Your task to perform on an android device: turn vacation reply on in the gmail app Image 0: 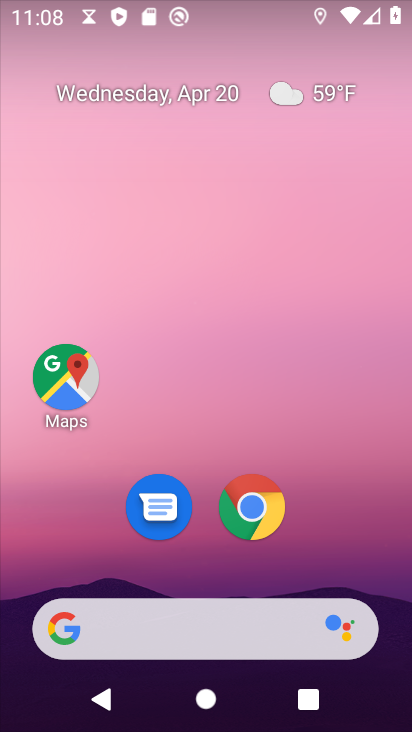
Step 0: drag from (288, 668) to (274, 301)
Your task to perform on an android device: turn vacation reply on in the gmail app Image 1: 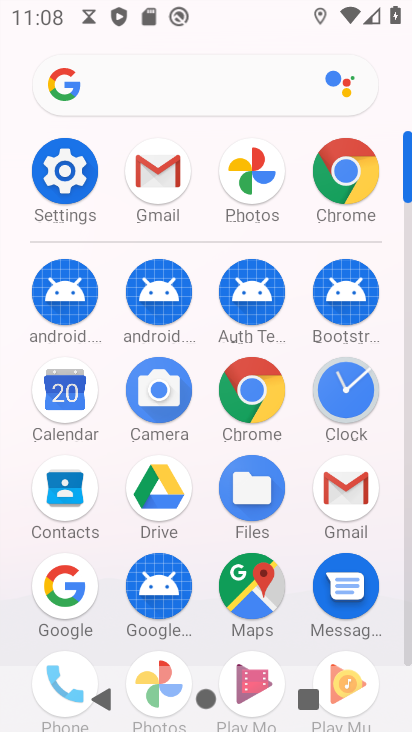
Step 1: drag from (199, 542) to (232, 370)
Your task to perform on an android device: turn vacation reply on in the gmail app Image 2: 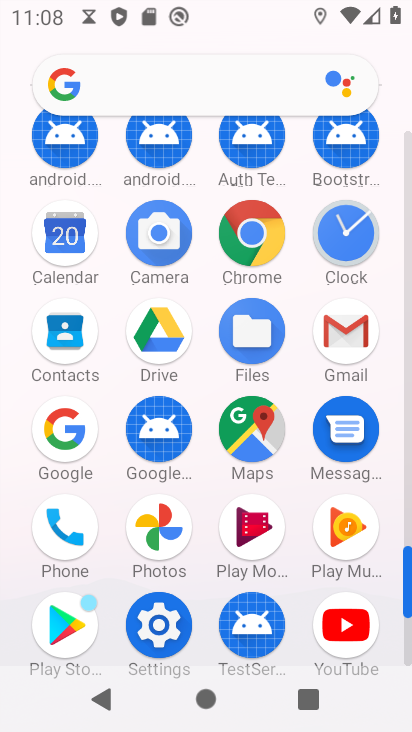
Step 2: click (331, 337)
Your task to perform on an android device: turn vacation reply on in the gmail app Image 3: 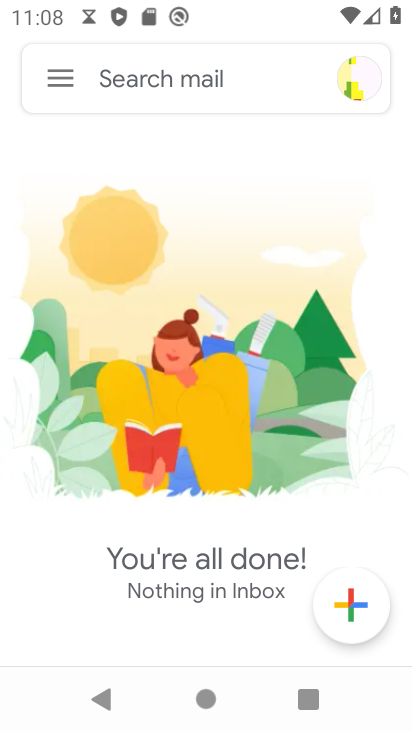
Step 3: click (66, 83)
Your task to perform on an android device: turn vacation reply on in the gmail app Image 4: 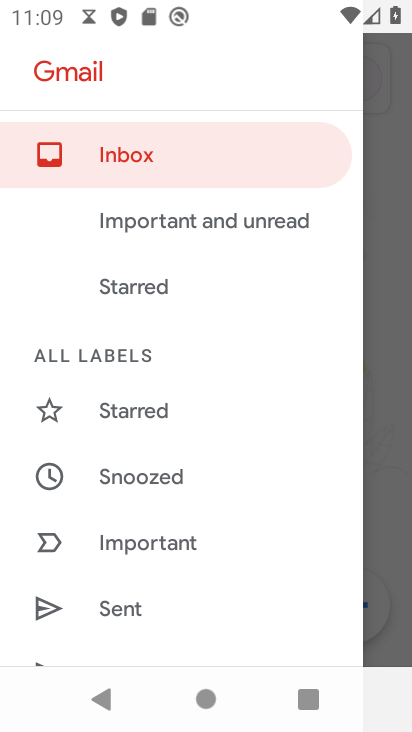
Step 4: drag from (151, 504) to (371, 223)
Your task to perform on an android device: turn vacation reply on in the gmail app Image 5: 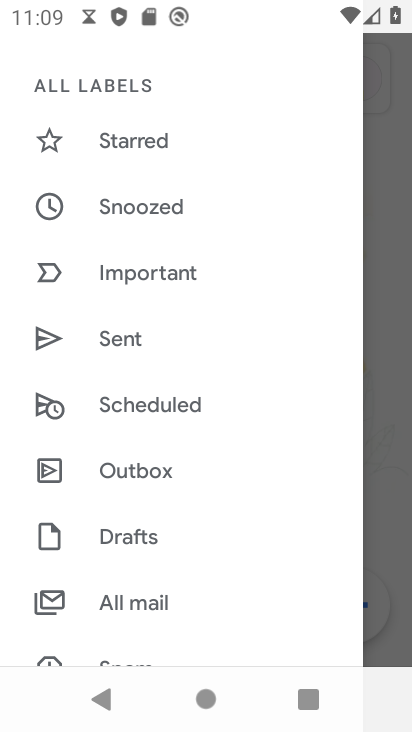
Step 5: drag from (168, 577) to (338, 297)
Your task to perform on an android device: turn vacation reply on in the gmail app Image 6: 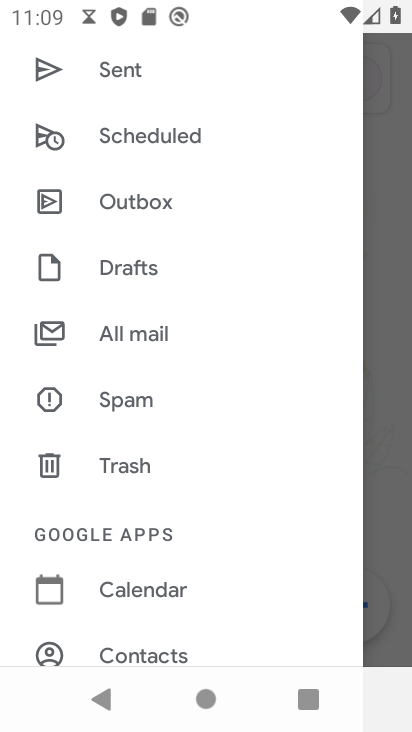
Step 6: drag from (138, 538) to (305, 285)
Your task to perform on an android device: turn vacation reply on in the gmail app Image 7: 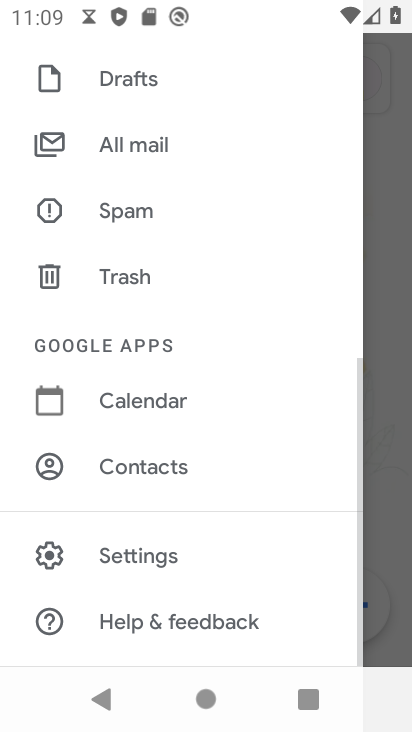
Step 7: click (125, 541)
Your task to perform on an android device: turn vacation reply on in the gmail app Image 8: 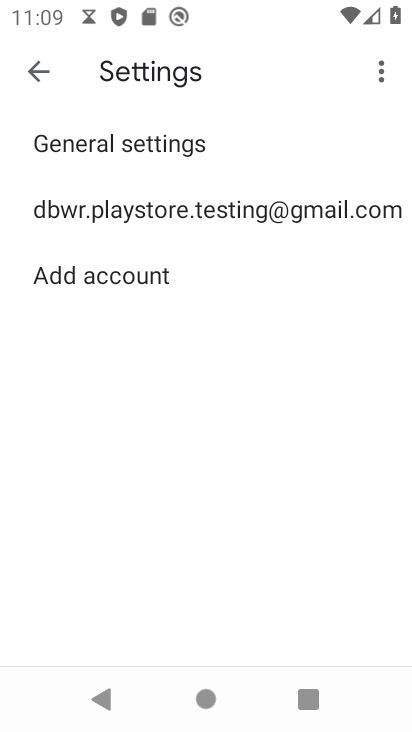
Step 8: click (161, 208)
Your task to perform on an android device: turn vacation reply on in the gmail app Image 9: 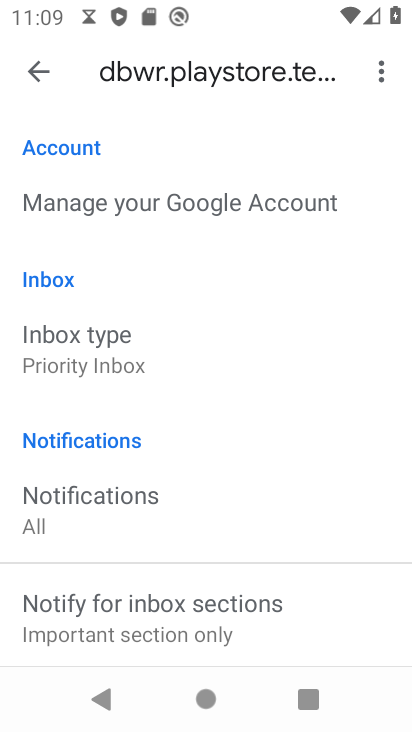
Step 9: drag from (181, 598) to (307, 234)
Your task to perform on an android device: turn vacation reply on in the gmail app Image 10: 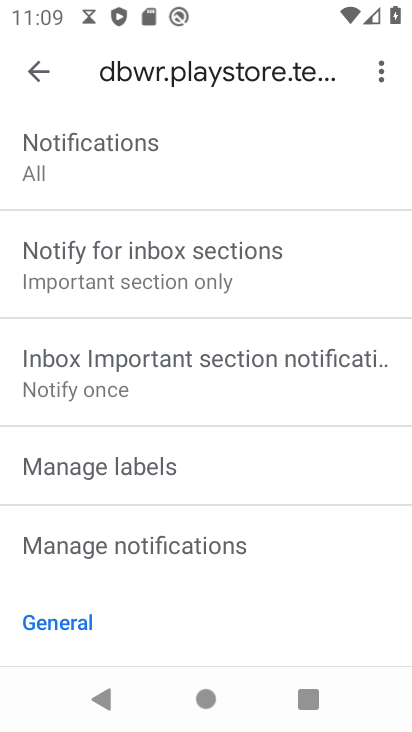
Step 10: drag from (200, 581) to (276, 237)
Your task to perform on an android device: turn vacation reply on in the gmail app Image 11: 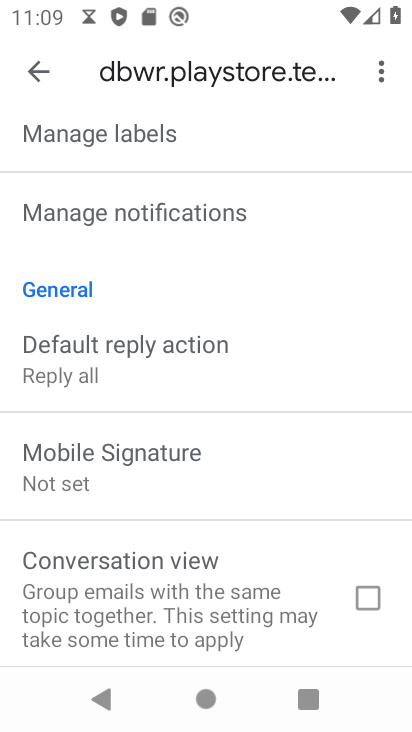
Step 11: drag from (204, 599) to (264, 208)
Your task to perform on an android device: turn vacation reply on in the gmail app Image 12: 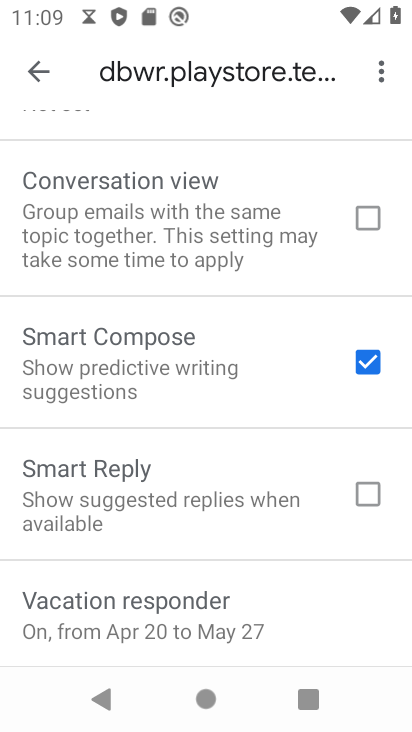
Step 12: click (169, 586)
Your task to perform on an android device: turn vacation reply on in the gmail app Image 13: 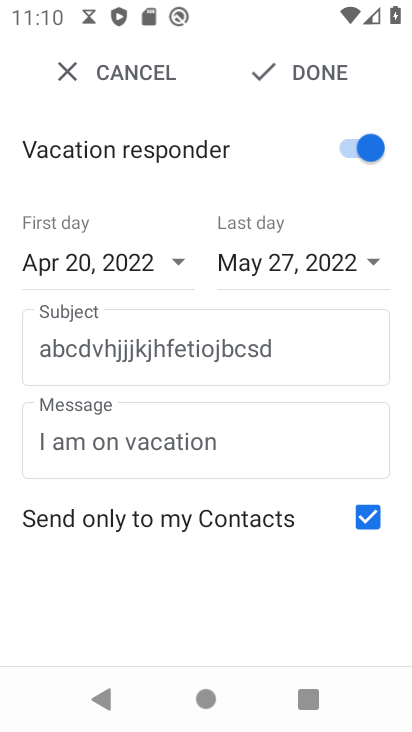
Step 13: task complete